Your task to perform on an android device: turn on javascript in the chrome app Image 0: 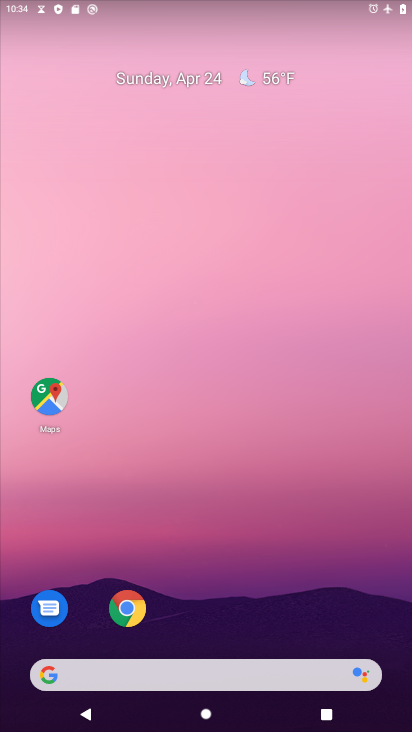
Step 0: drag from (195, 659) to (121, 4)
Your task to perform on an android device: turn on javascript in the chrome app Image 1: 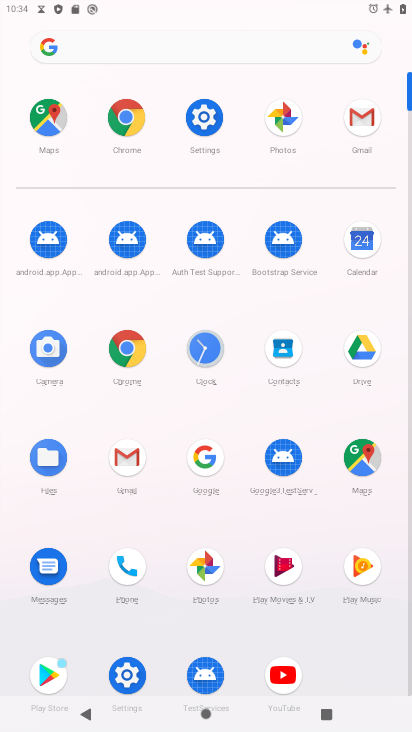
Step 1: click (128, 354)
Your task to perform on an android device: turn on javascript in the chrome app Image 2: 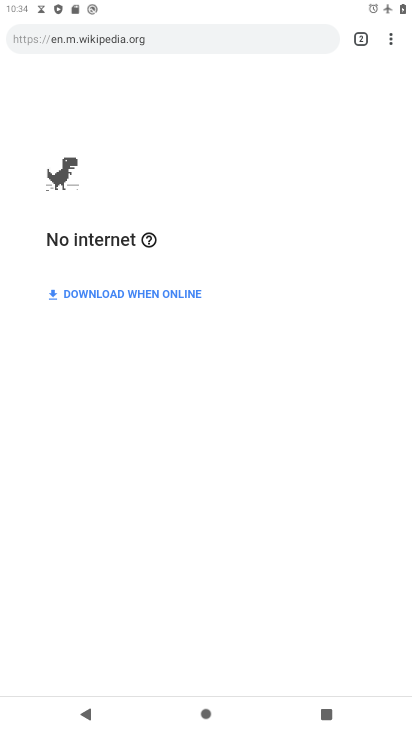
Step 2: drag from (385, 37) to (245, 471)
Your task to perform on an android device: turn on javascript in the chrome app Image 3: 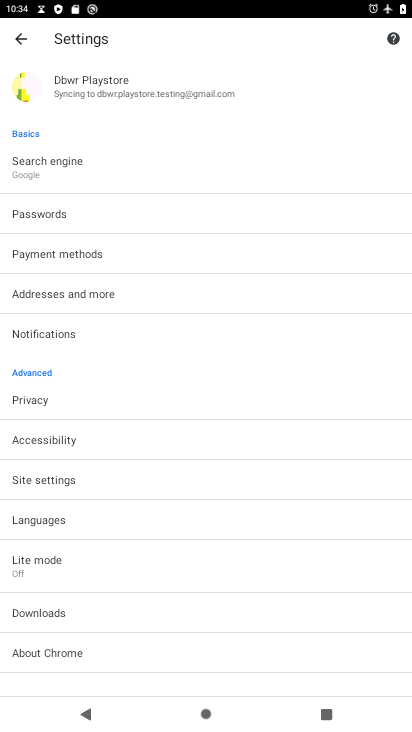
Step 3: click (54, 482)
Your task to perform on an android device: turn on javascript in the chrome app Image 4: 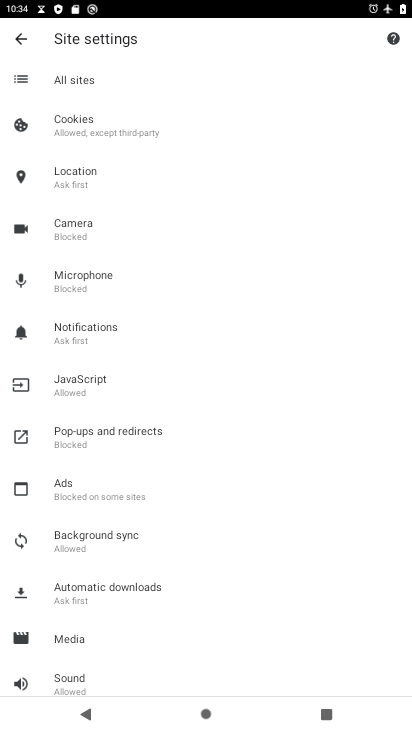
Step 4: click (98, 391)
Your task to perform on an android device: turn on javascript in the chrome app Image 5: 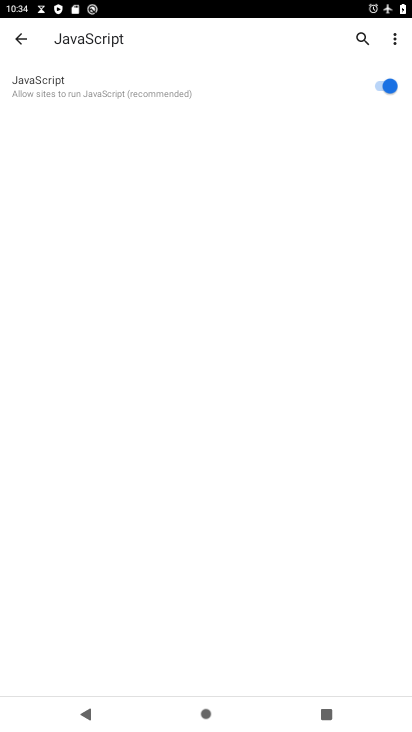
Step 5: task complete